Your task to perform on an android device: Open the phone app and click the voicemail tab. Image 0: 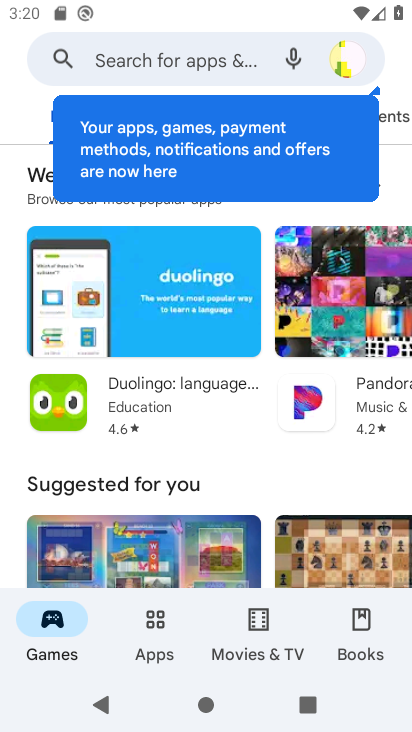
Step 0: press home button
Your task to perform on an android device: Open the phone app and click the voicemail tab. Image 1: 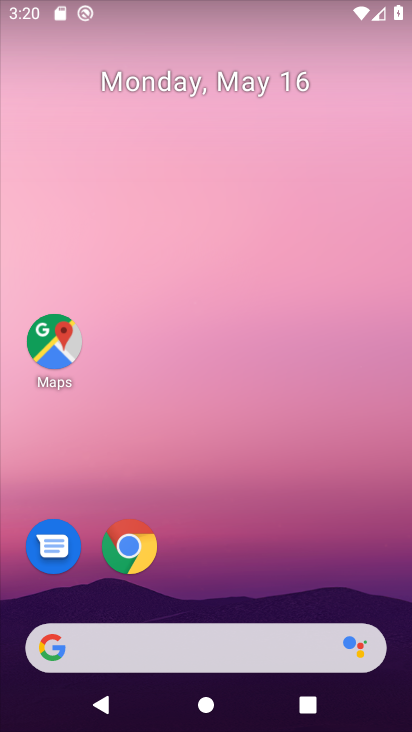
Step 1: drag from (366, 583) to (353, 191)
Your task to perform on an android device: Open the phone app and click the voicemail tab. Image 2: 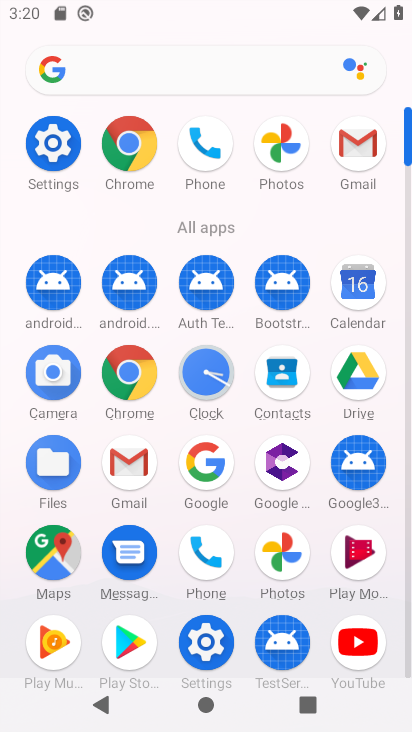
Step 2: click (207, 564)
Your task to perform on an android device: Open the phone app and click the voicemail tab. Image 3: 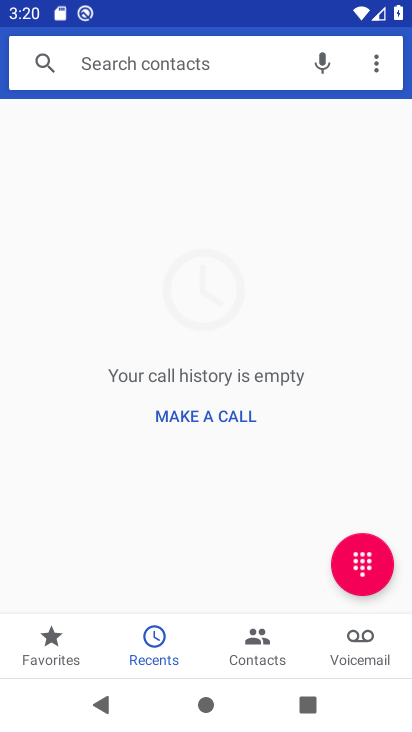
Step 3: click (356, 639)
Your task to perform on an android device: Open the phone app and click the voicemail tab. Image 4: 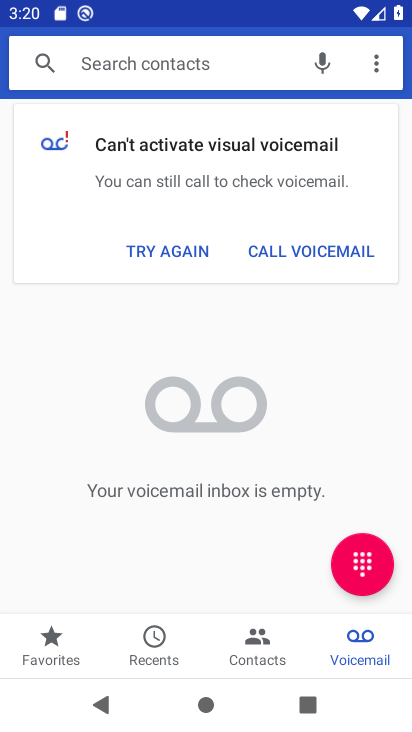
Step 4: task complete